Your task to perform on an android device: toggle pop-ups in chrome Image 0: 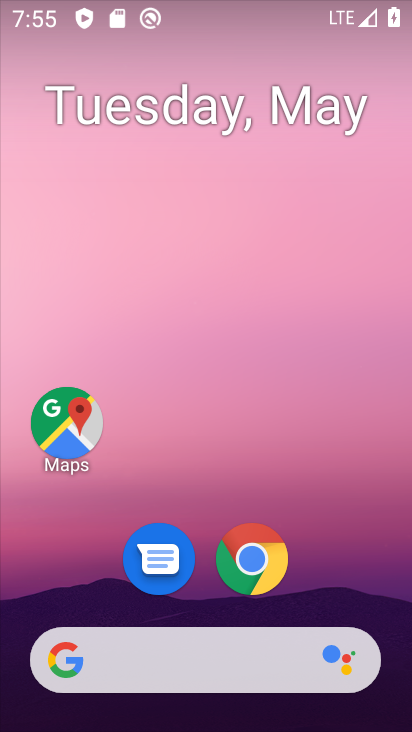
Step 0: click (408, 495)
Your task to perform on an android device: toggle pop-ups in chrome Image 1: 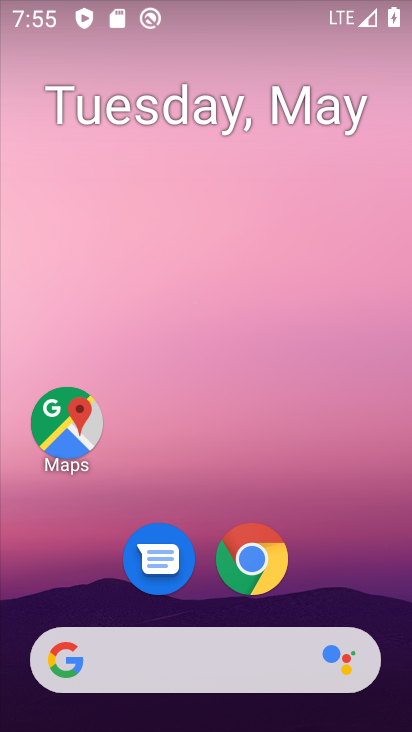
Step 1: drag from (331, 590) to (285, 153)
Your task to perform on an android device: toggle pop-ups in chrome Image 2: 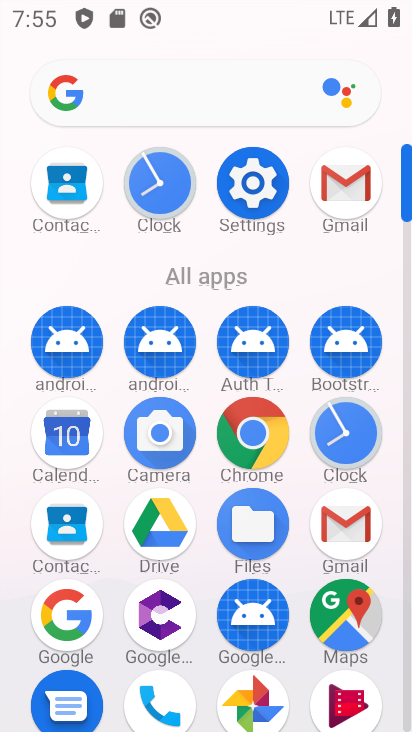
Step 2: click (247, 435)
Your task to perform on an android device: toggle pop-ups in chrome Image 3: 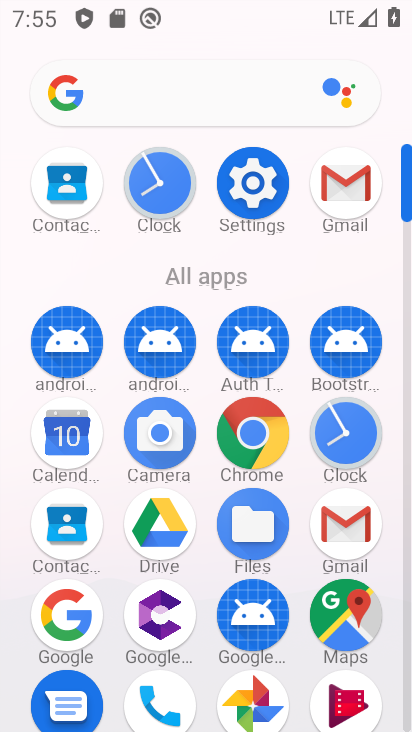
Step 3: click (247, 435)
Your task to perform on an android device: toggle pop-ups in chrome Image 4: 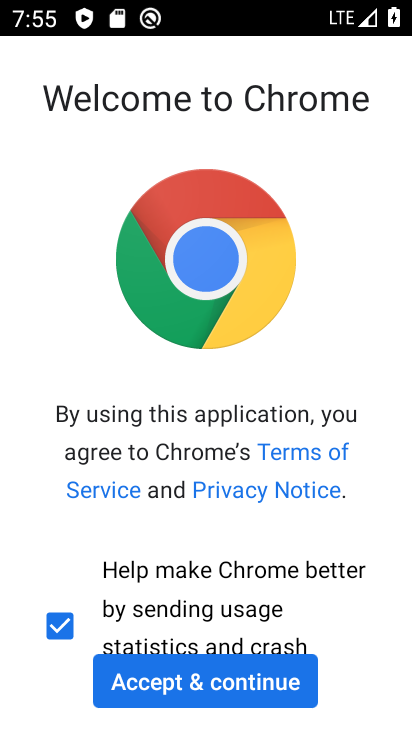
Step 4: click (232, 674)
Your task to perform on an android device: toggle pop-ups in chrome Image 5: 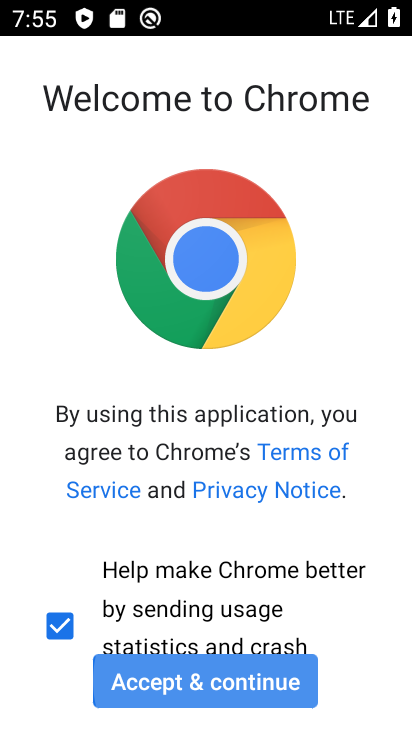
Step 5: click (243, 634)
Your task to perform on an android device: toggle pop-ups in chrome Image 6: 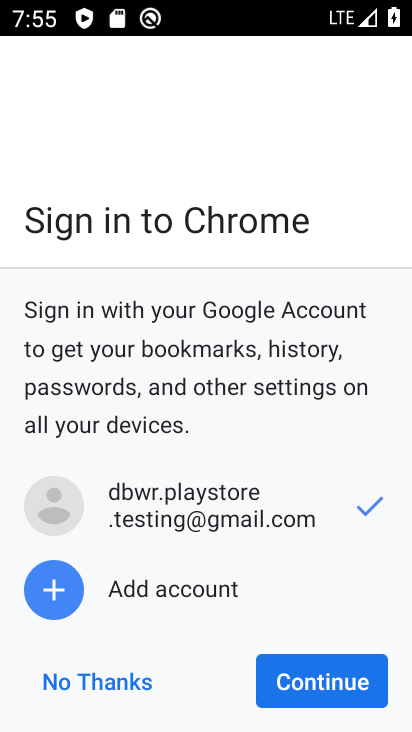
Step 6: click (337, 684)
Your task to perform on an android device: toggle pop-ups in chrome Image 7: 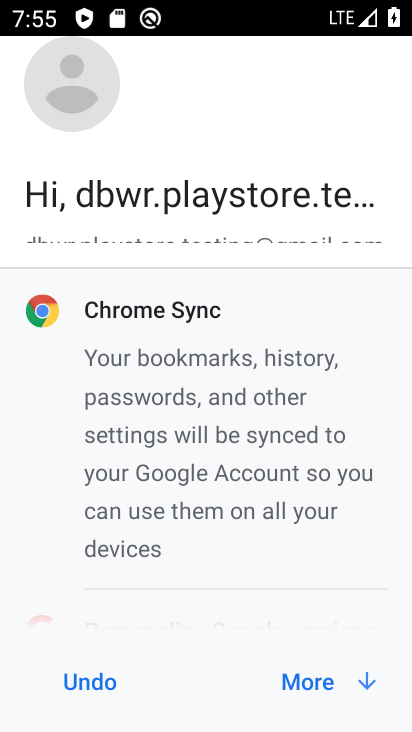
Step 7: click (335, 672)
Your task to perform on an android device: toggle pop-ups in chrome Image 8: 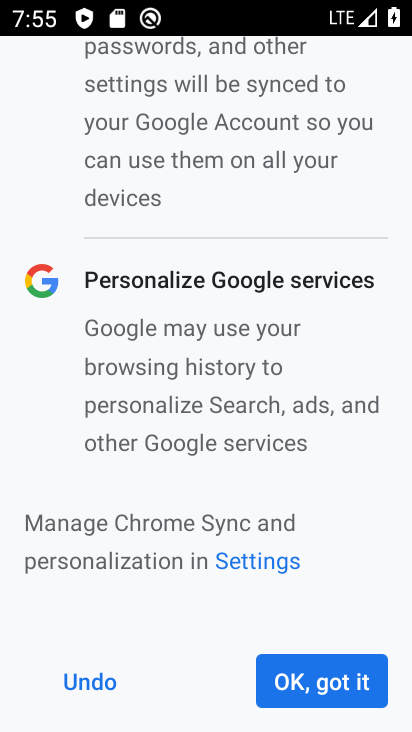
Step 8: click (306, 667)
Your task to perform on an android device: toggle pop-ups in chrome Image 9: 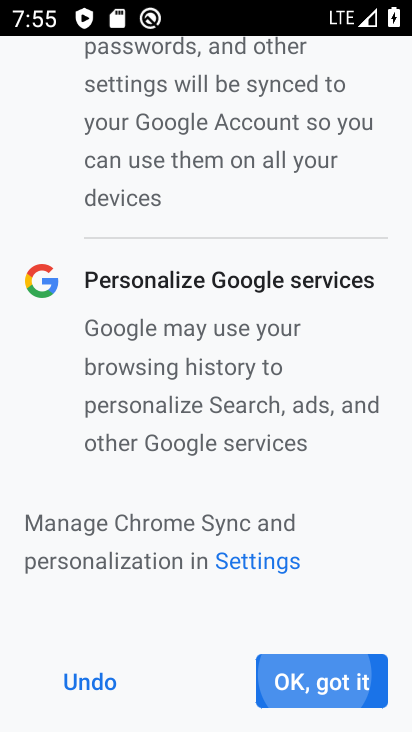
Step 9: click (306, 667)
Your task to perform on an android device: toggle pop-ups in chrome Image 10: 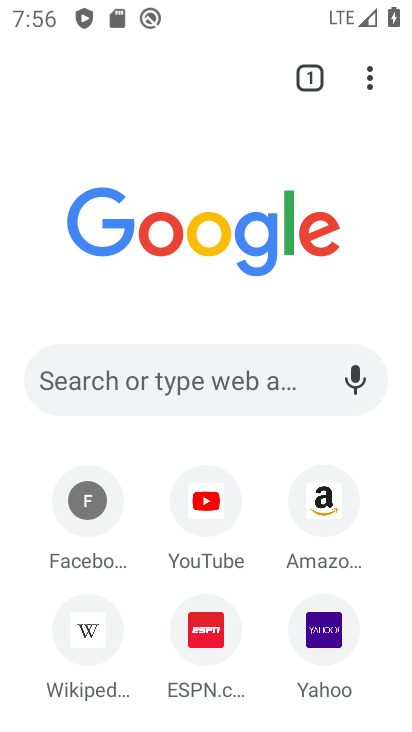
Step 10: drag from (369, 73) to (114, 619)
Your task to perform on an android device: toggle pop-ups in chrome Image 11: 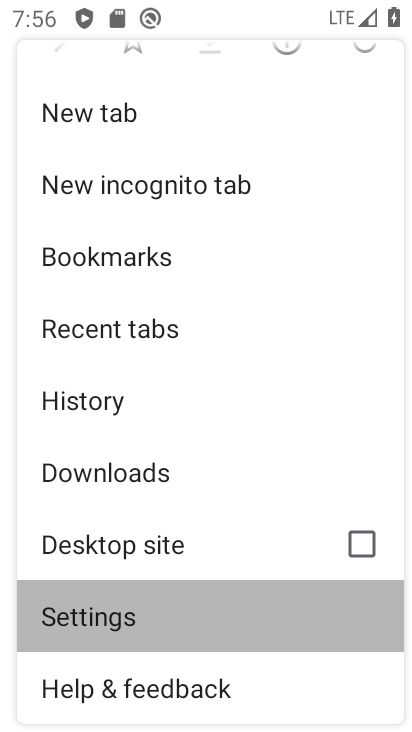
Step 11: click (101, 611)
Your task to perform on an android device: toggle pop-ups in chrome Image 12: 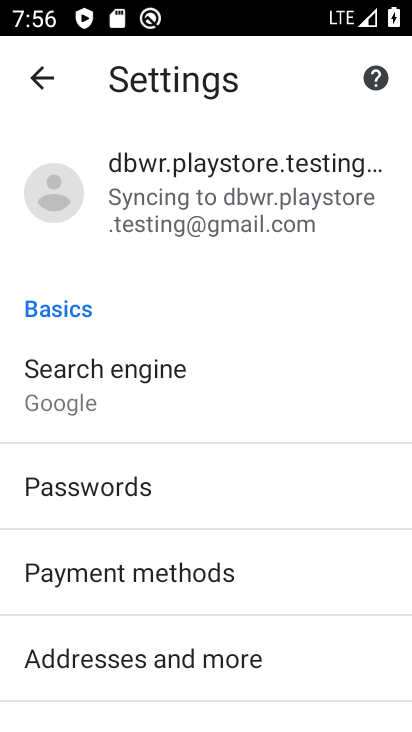
Step 12: drag from (178, 637) to (224, 249)
Your task to perform on an android device: toggle pop-ups in chrome Image 13: 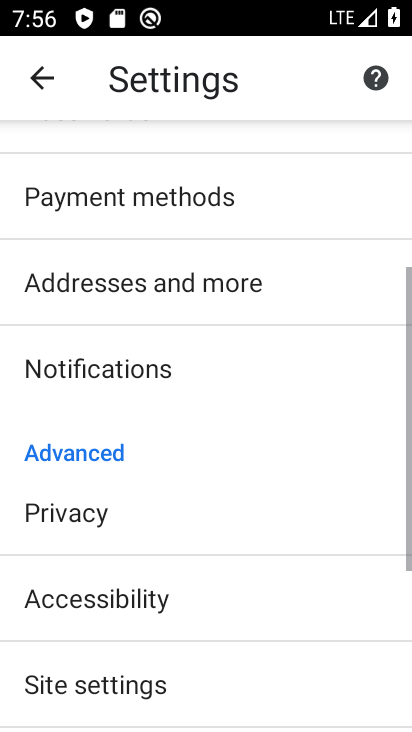
Step 13: drag from (243, 544) to (204, 63)
Your task to perform on an android device: toggle pop-ups in chrome Image 14: 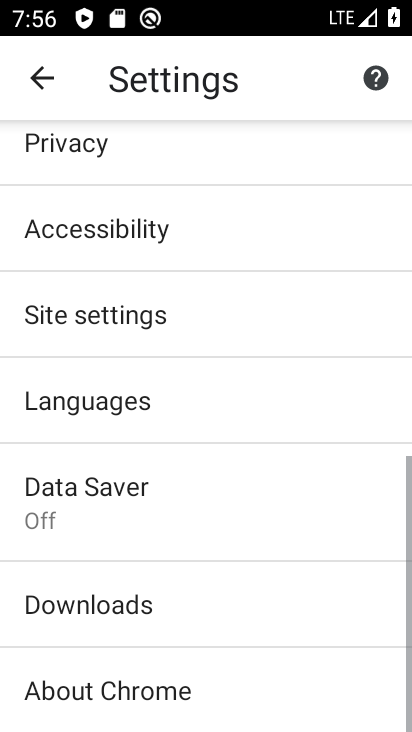
Step 14: drag from (187, 535) to (175, 39)
Your task to perform on an android device: toggle pop-ups in chrome Image 15: 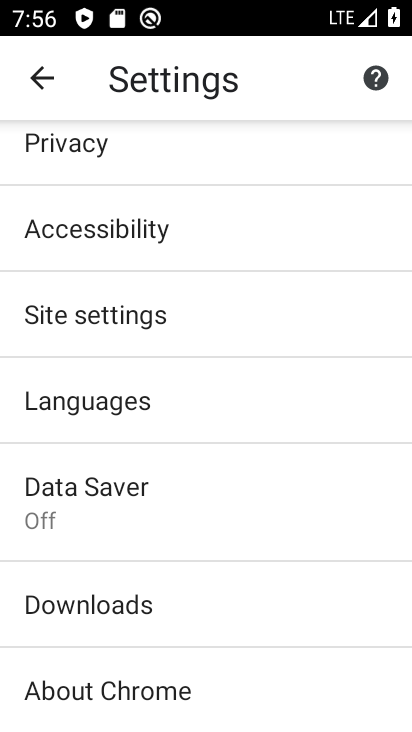
Step 15: click (67, 317)
Your task to perform on an android device: toggle pop-ups in chrome Image 16: 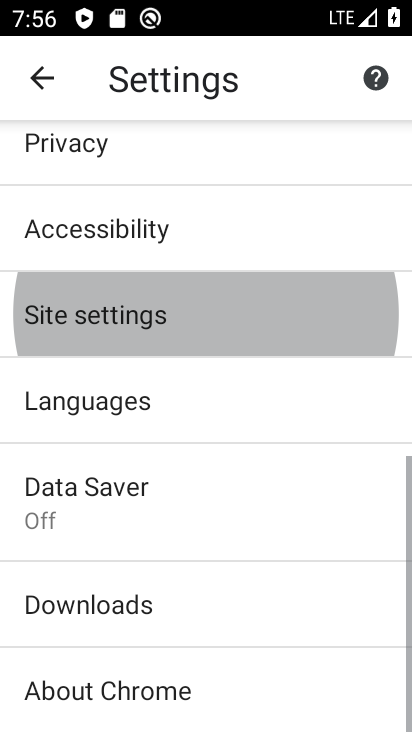
Step 16: click (67, 317)
Your task to perform on an android device: toggle pop-ups in chrome Image 17: 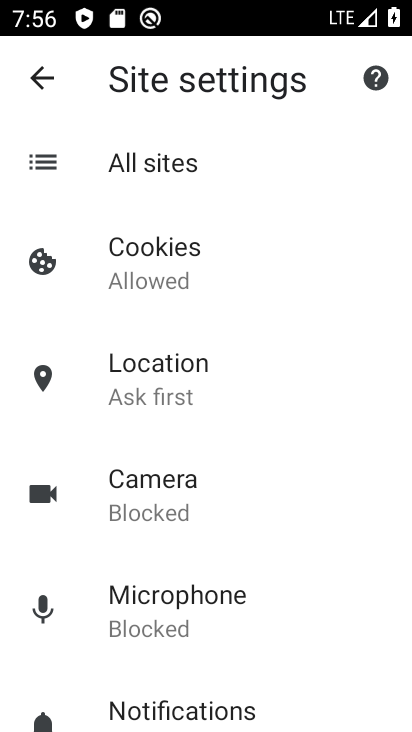
Step 17: drag from (167, 627) to (203, 196)
Your task to perform on an android device: toggle pop-ups in chrome Image 18: 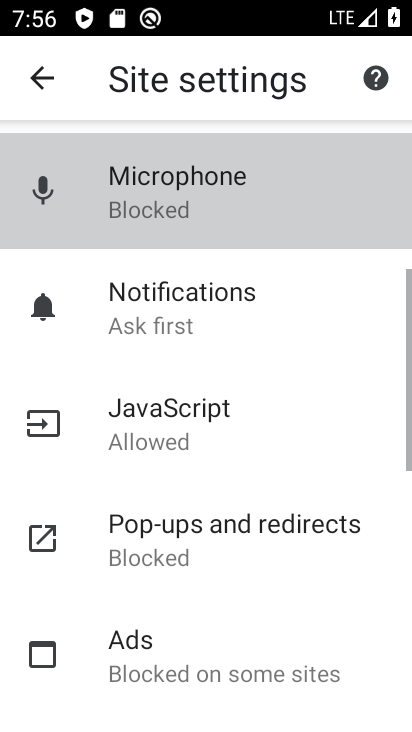
Step 18: drag from (171, 579) to (230, 253)
Your task to perform on an android device: toggle pop-ups in chrome Image 19: 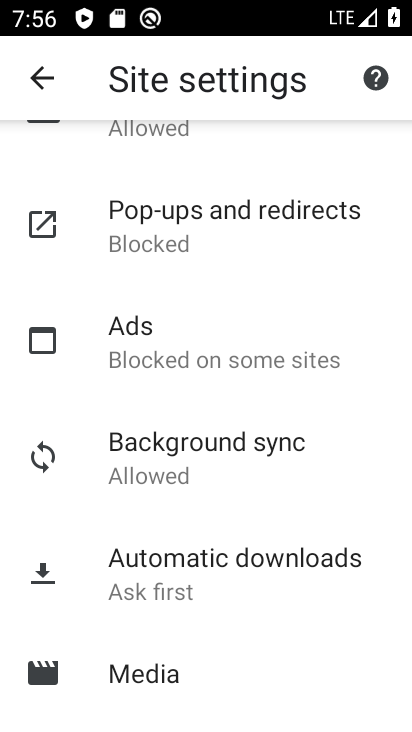
Step 19: click (166, 209)
Your task to perform on an android device: toggle pop-ups in chrome Image 20: 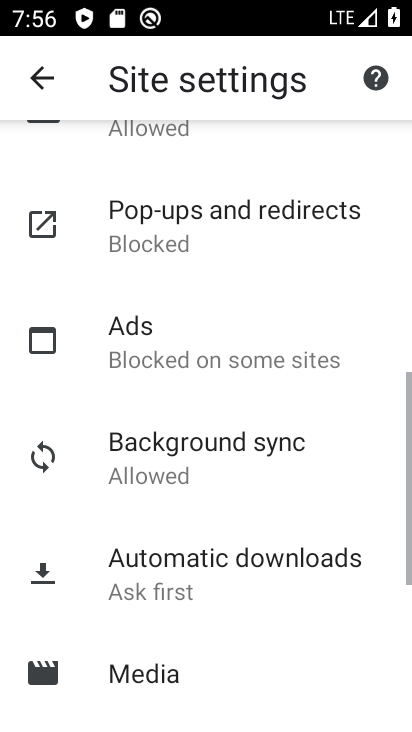
Step 20: click (166, 209)
Your task to perform on an android device: toggle pop-ups in chrome Image 21: 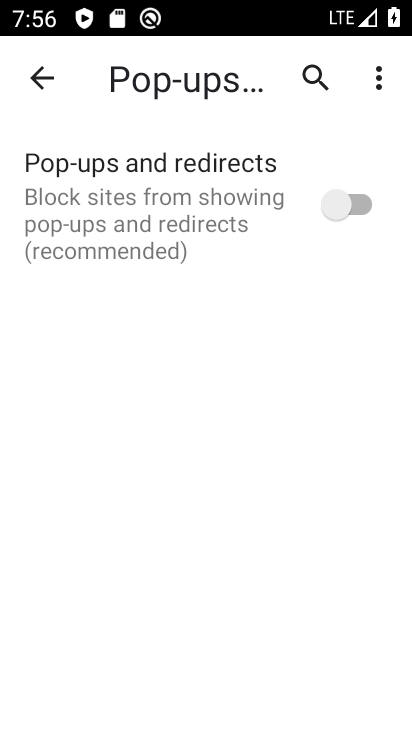
Step 21: click (326, 211)
Your task to perform on an android device: toggle pop-ups in chrome Image 22: 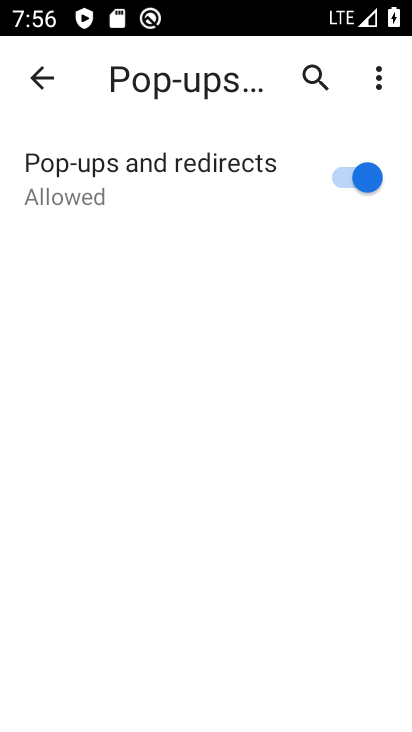
Step 22: task complete